Your task to perform on an android device: allow cookies in the chrome app Image 0: 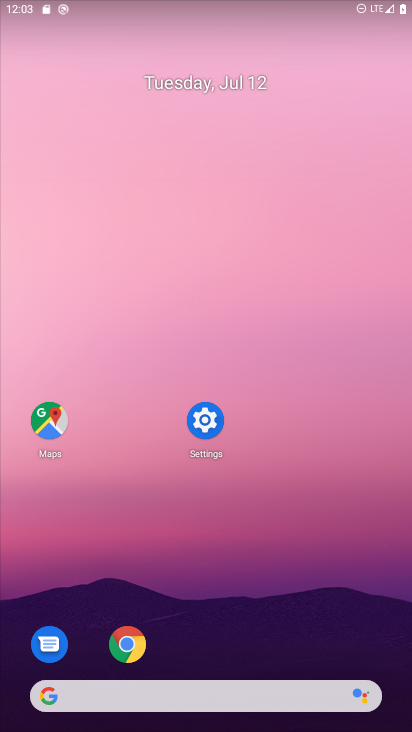
Step 0: click (123, 632)
Your task to perform on an android device: allow cookies in the chrome app Image 1: 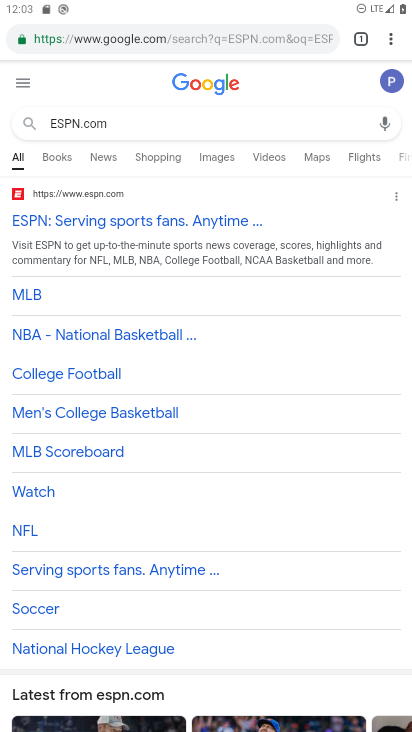
Step 1: click (389, 38)
Your task to perform on an android device: allow cookies in the chrome app Image 2: 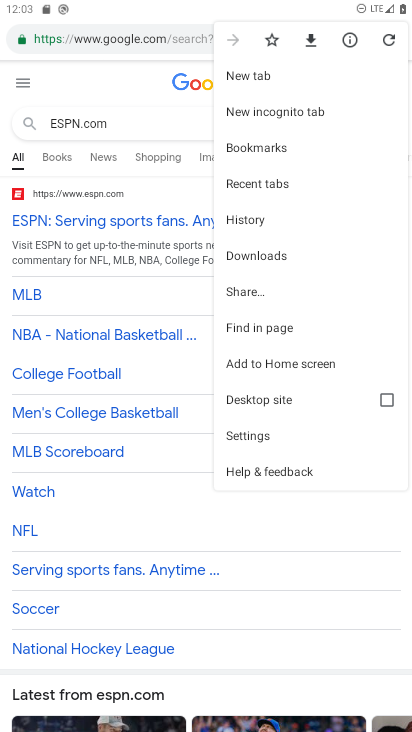
Step 2: click (237, 436)
Your task to perform on an android device: allow cookies in the chrome app Image 3: 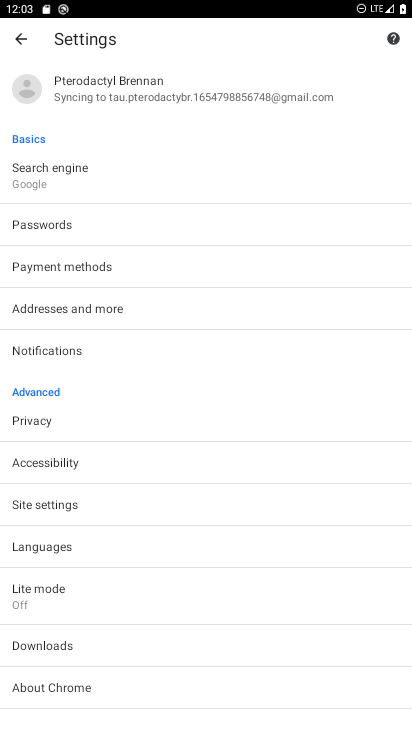
Step 3: click (57, 493)
Your task to perform on an android device: allow cookies in the chrome app Image 4: 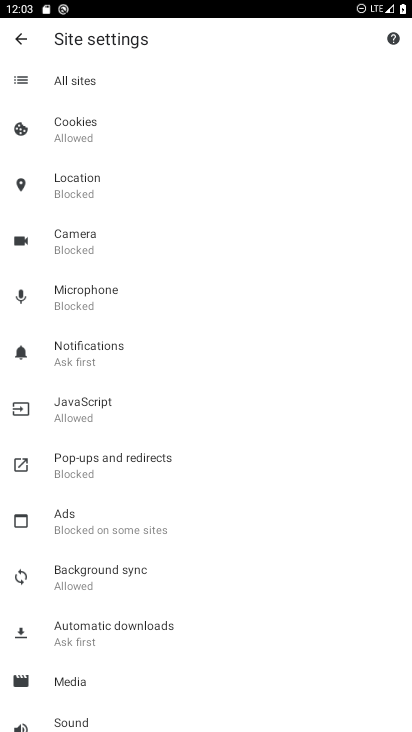
Step 4: click (59, 135)
Your task to perform on an android device: allow cookies in the chrome app Image 5: 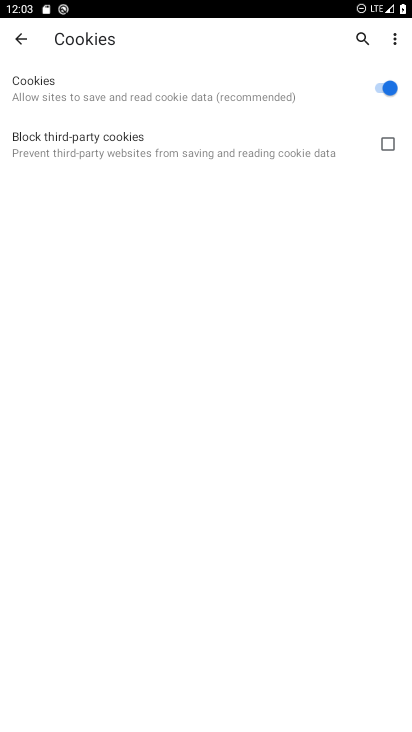
Step 5: task complete